Your task to perform on an android device: Go to privacy settings Image 0: 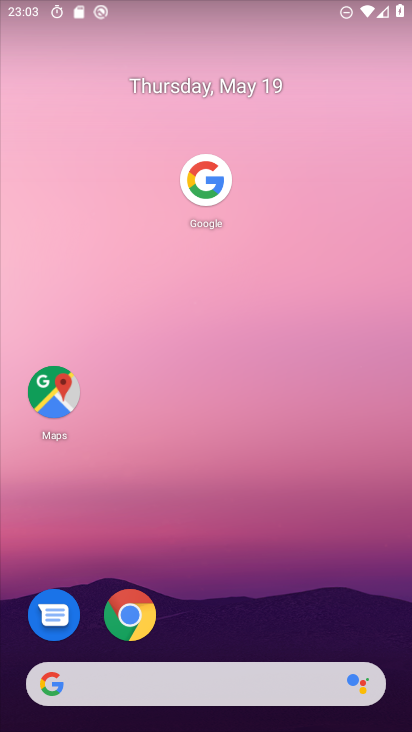
Step 0: drag from (252, 586) to (287, 45)
Your task to perform on an android device: Go to privacy settings Image 1: 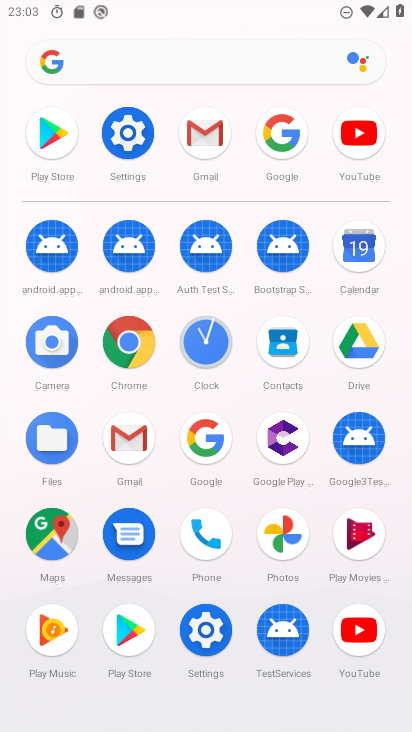
Step 1: click (130, 135)
Your task to perform on an android device: Go to privacy settings Image 2: 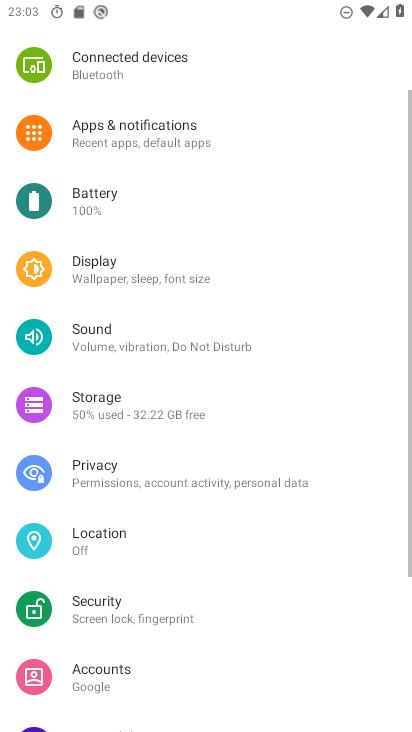
Step 2: drag from (131, 136) to (225, 599)
Your task to perform on an android device: Go to privacy settings Image 3: 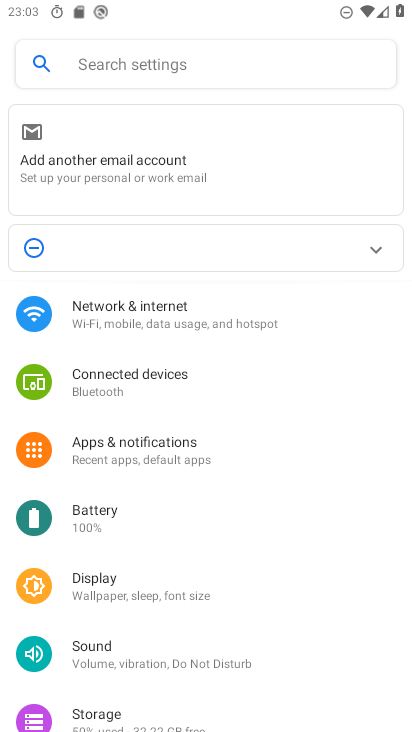
Step 3: click (167, 311)
Your task to perform on an android device: Go to privacy settings Image 4: 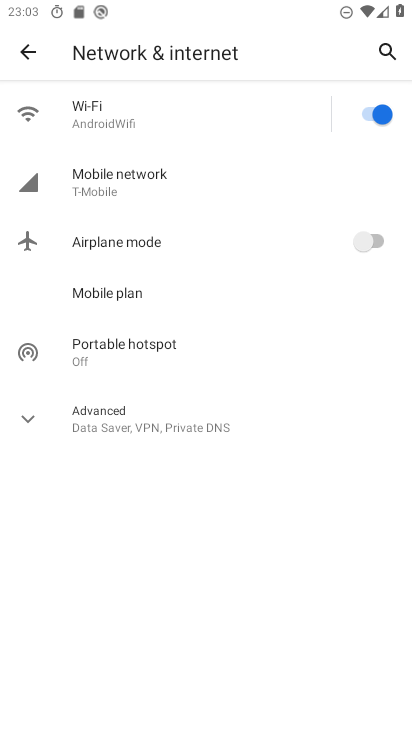
Step 4: task complete